Your task to perform on an android device: Go to calendar. Show me events next week Image 0: 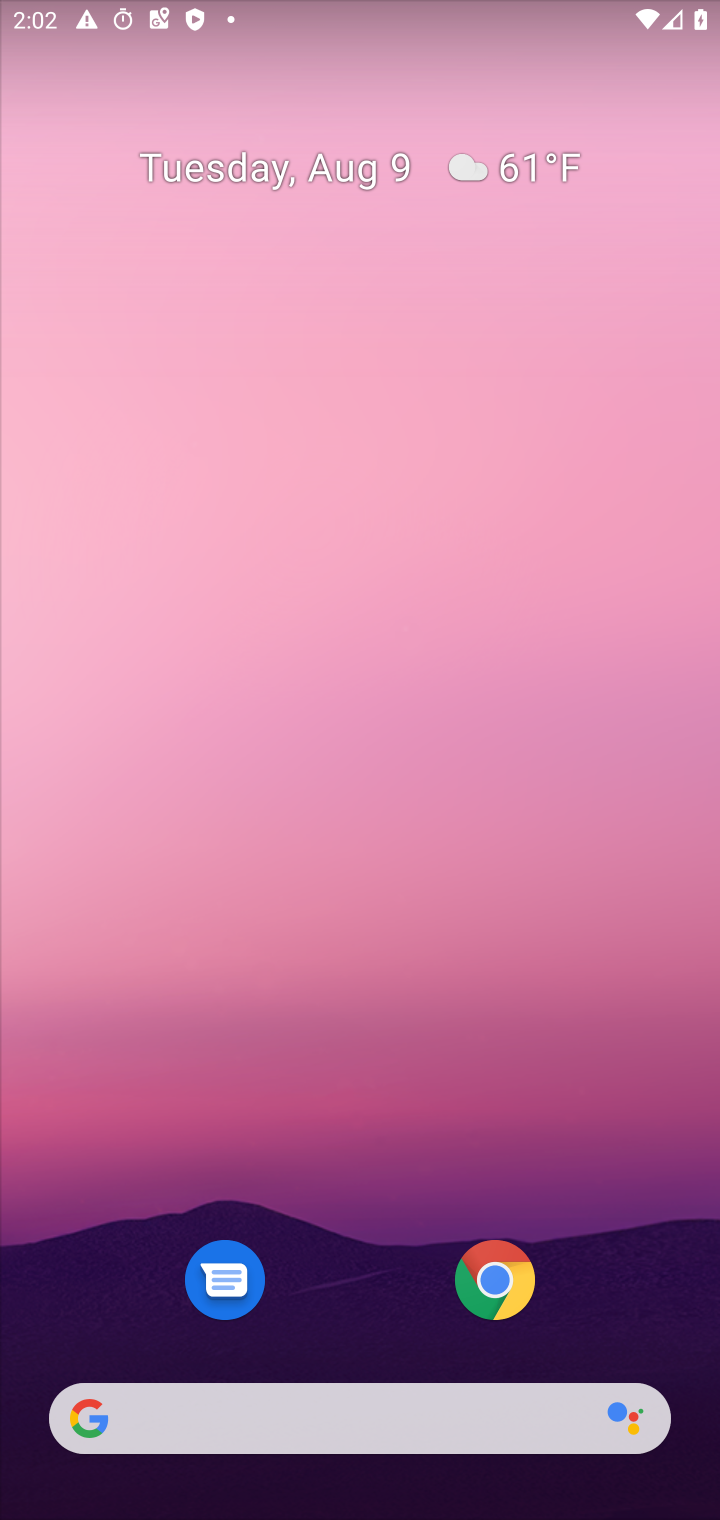
Step 0: drag from (300, 1150) to (508, 111)
Your task to perform on an android device: Go to calendar. Show me events next week Image 1: 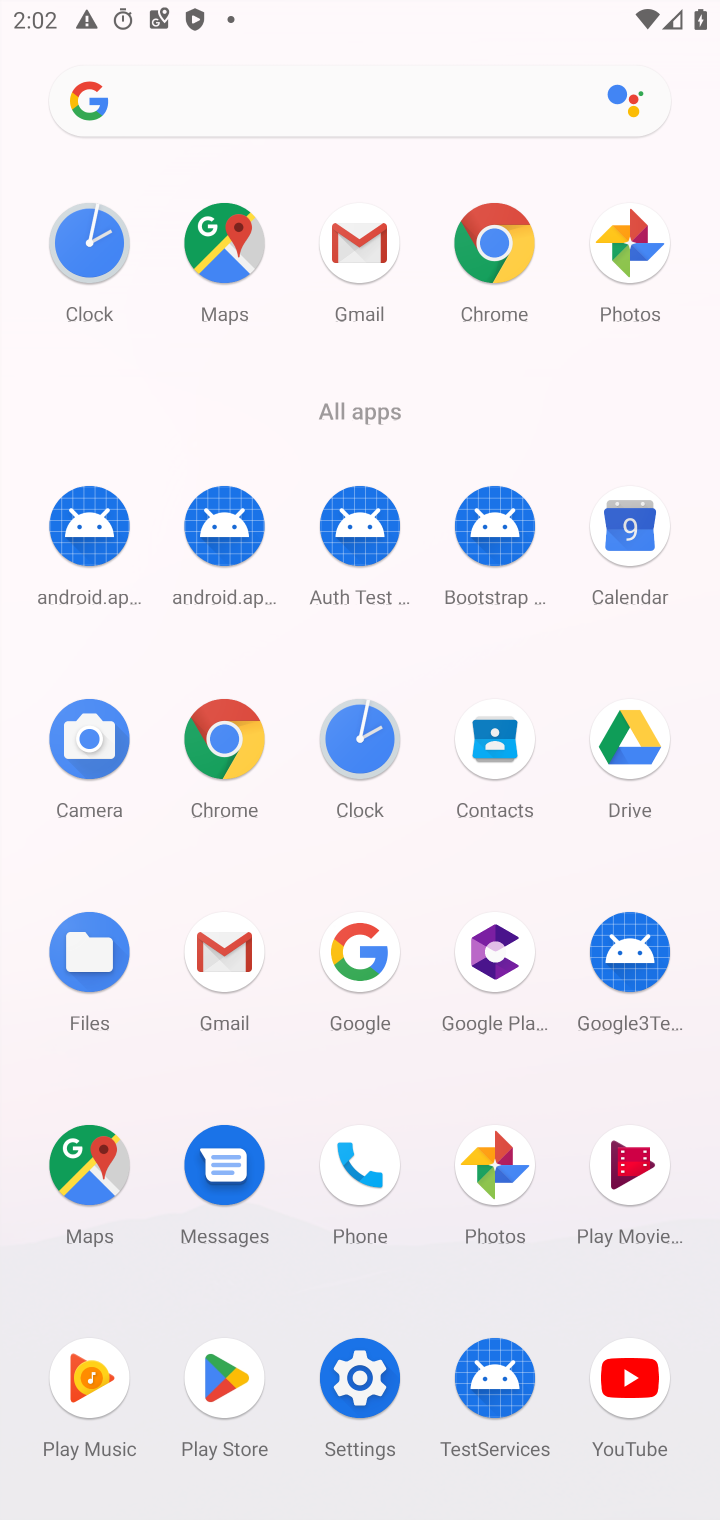
Step 1: click (629, 535)
Your task to perform on an android device: Go to calendar. Show me events next week Image 2: 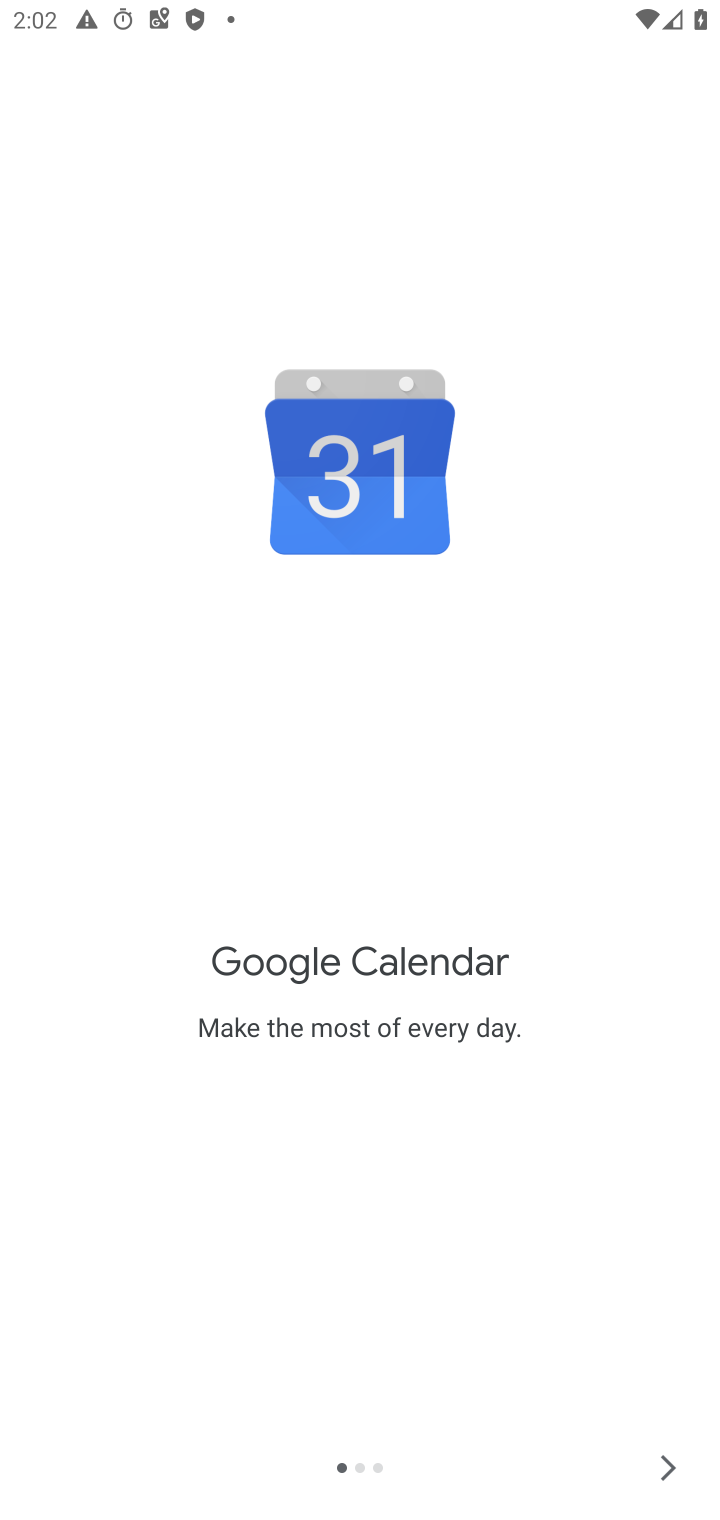
Step 2: click (663, 1473)
Your task to perform on an android device: Go to calendar. Show me events next week Image 3: 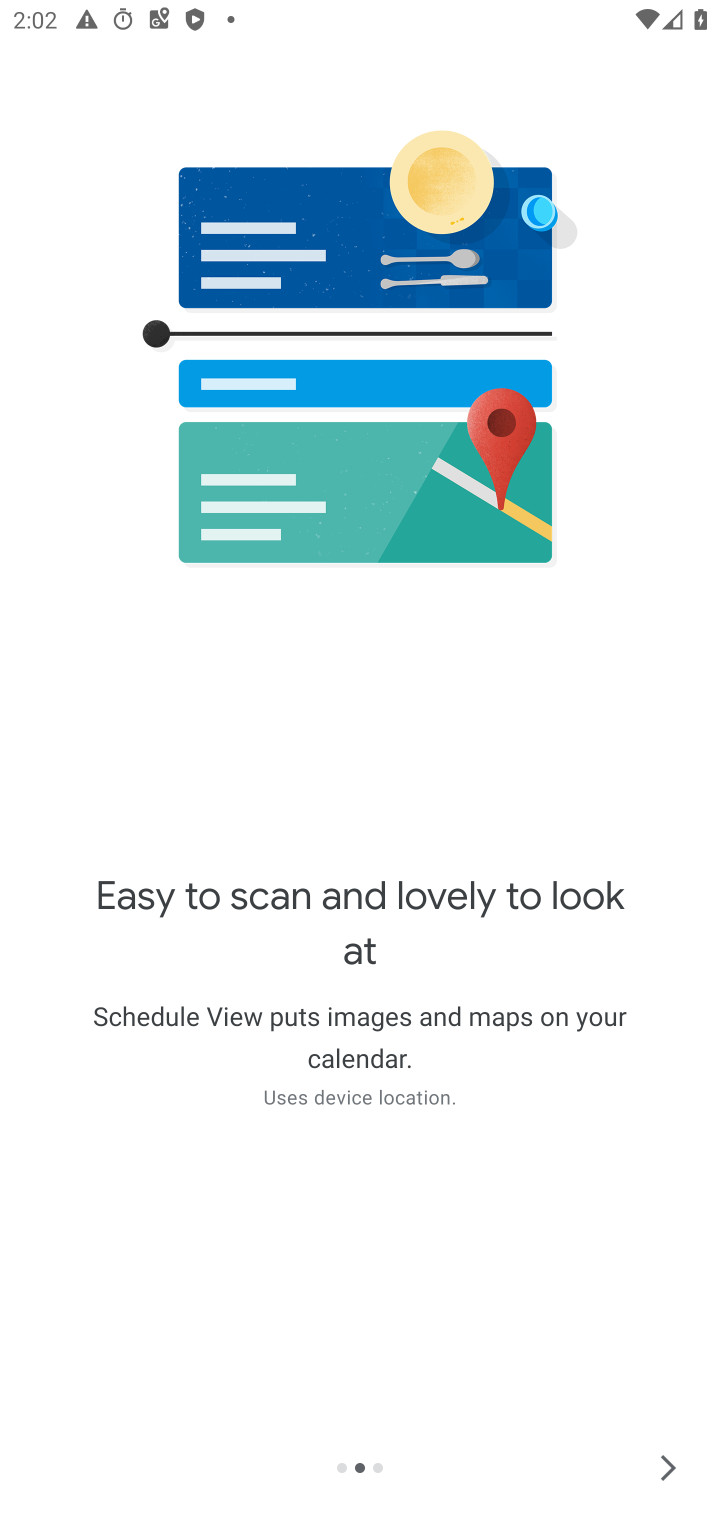
Step 3: click (660, 1464)
Your task to perform on an android device: Go to calendar. Show me events next week Image 4: 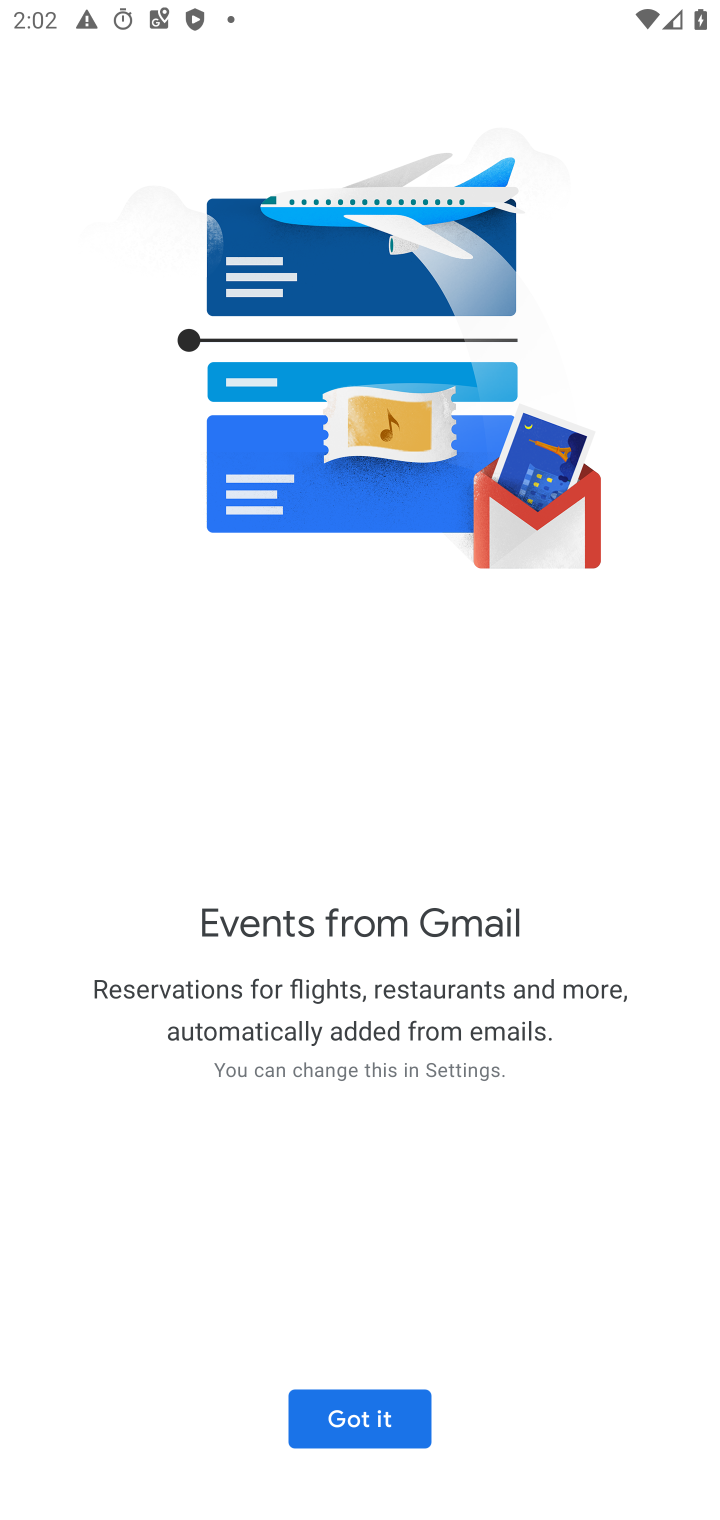
Step 4: click (398, 1423)
Your task to perform on an android device: Go to calendar. Show me events next week Image 5: 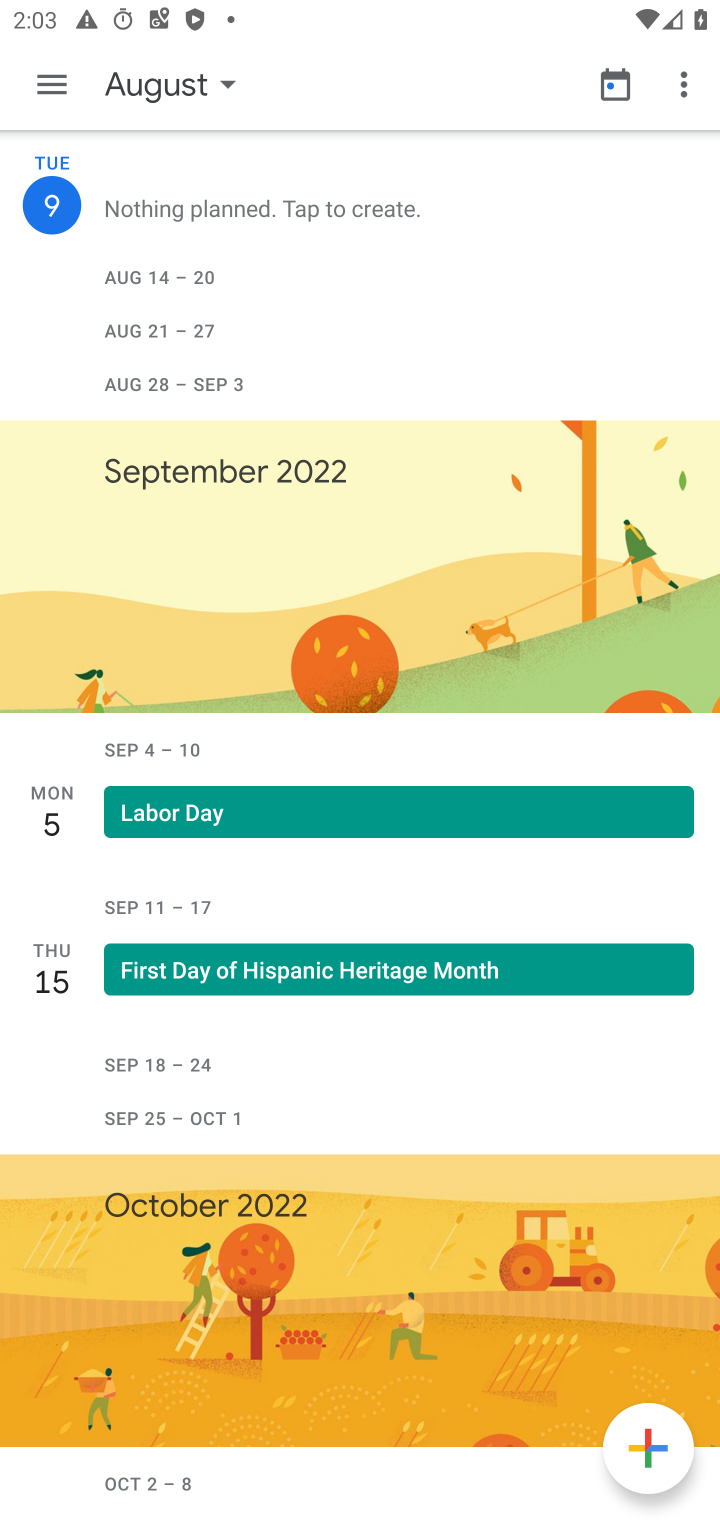
Step 5: click (173, 78)
Your task to perform on an android device: Go to calendar. Show me events next week Image 6: 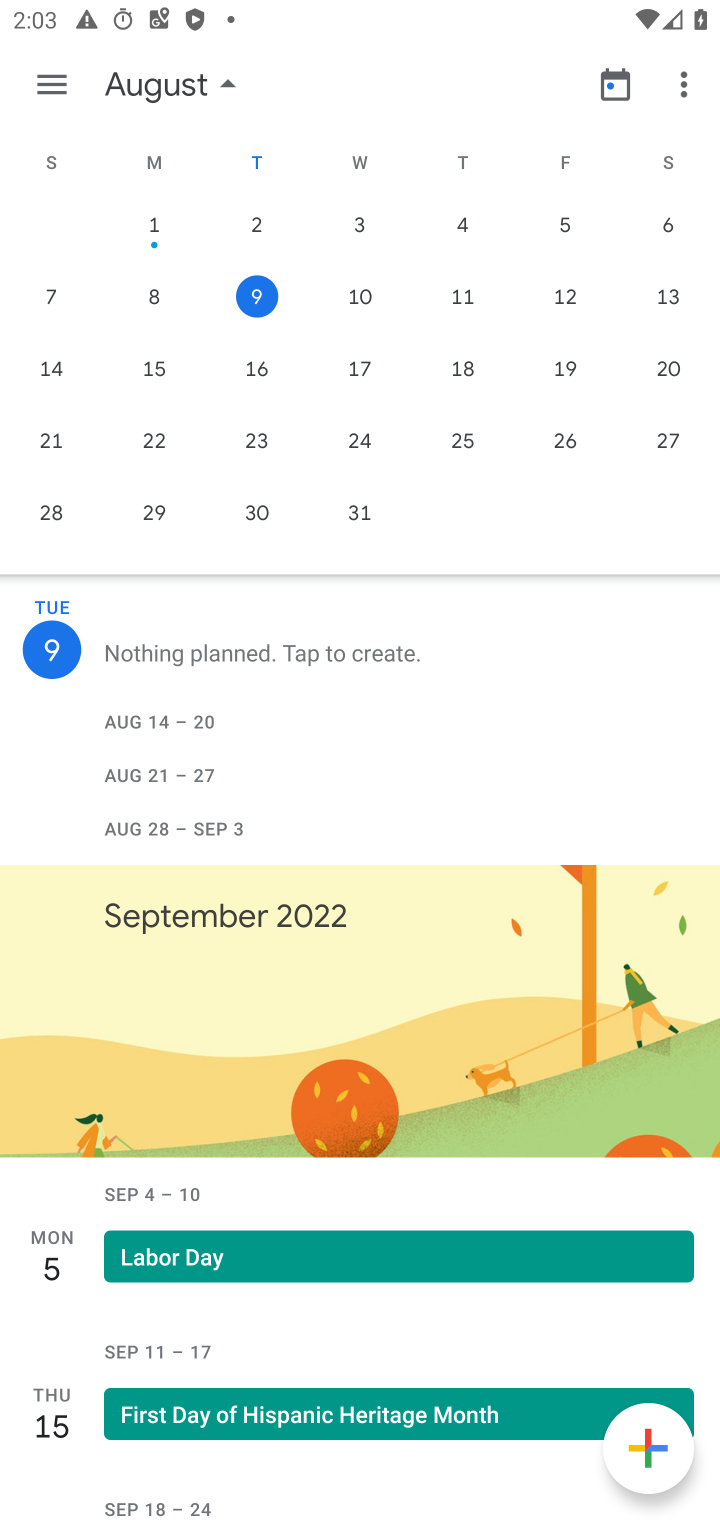
Step 6: click (43, 372)
Your task to perform on an android device: Go to calendar. Show me events next week Image 7: 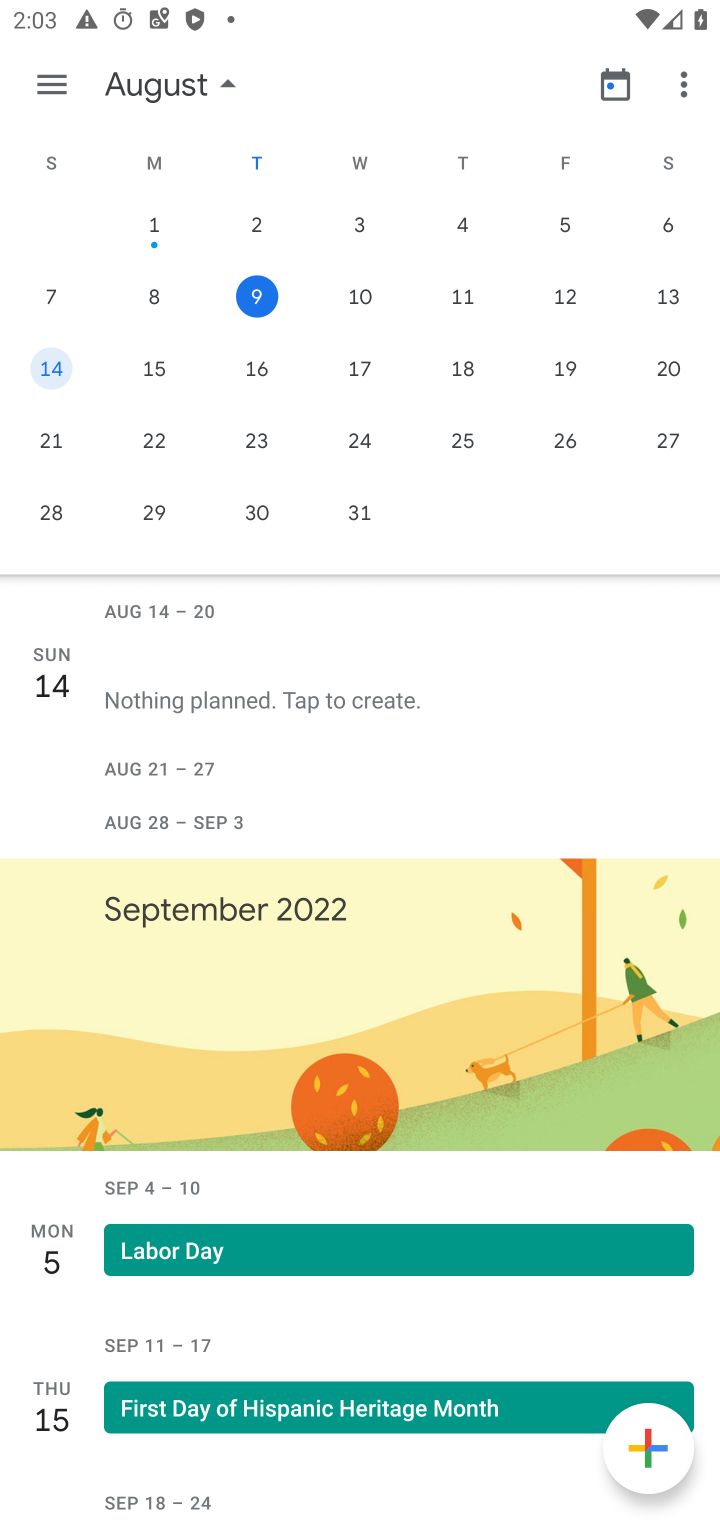
Step 7: click (40, 84)
Your task to perform on an android device: Go to calendar. Show me events next week Image 8: 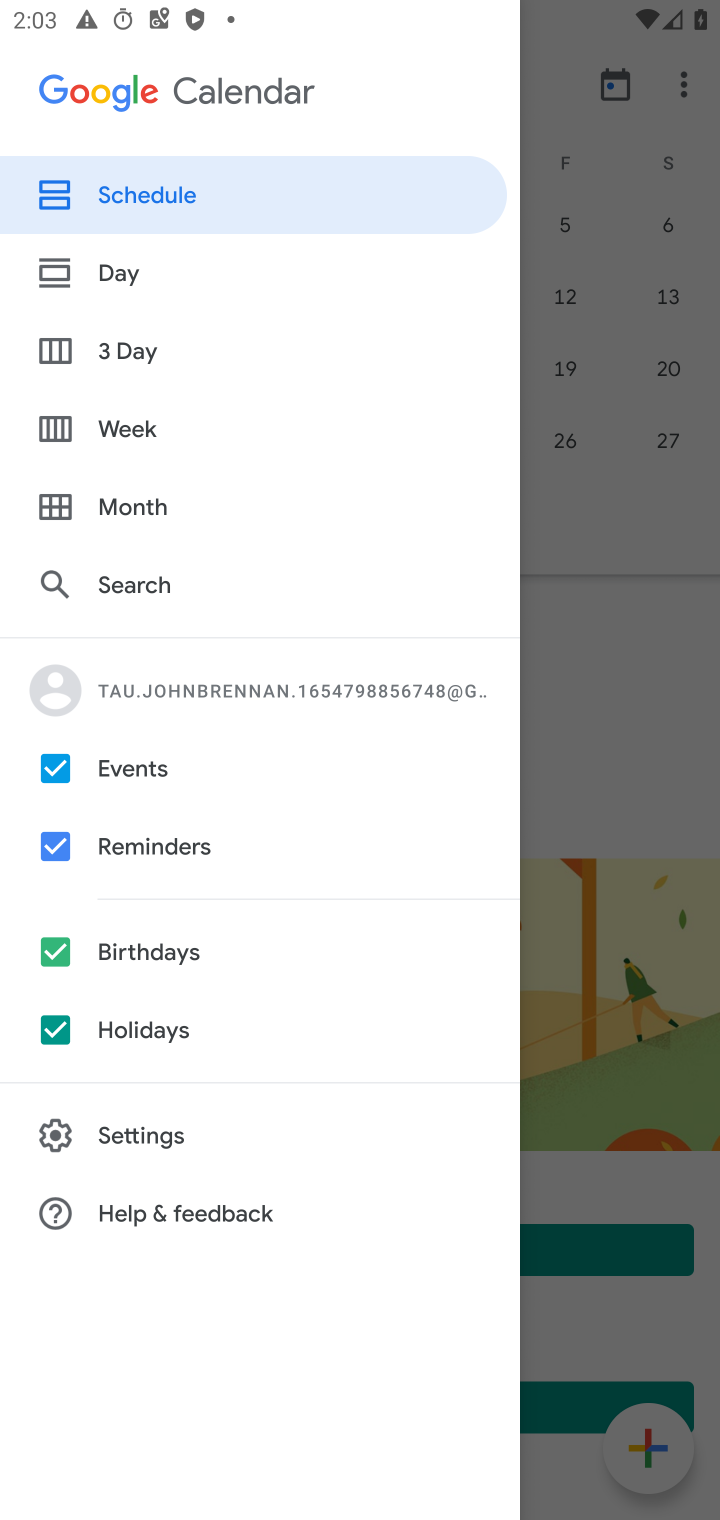
Step 8: click (126, 421)
Your task to perform on an android device: Go to calendar. Show me events next week Image 9: 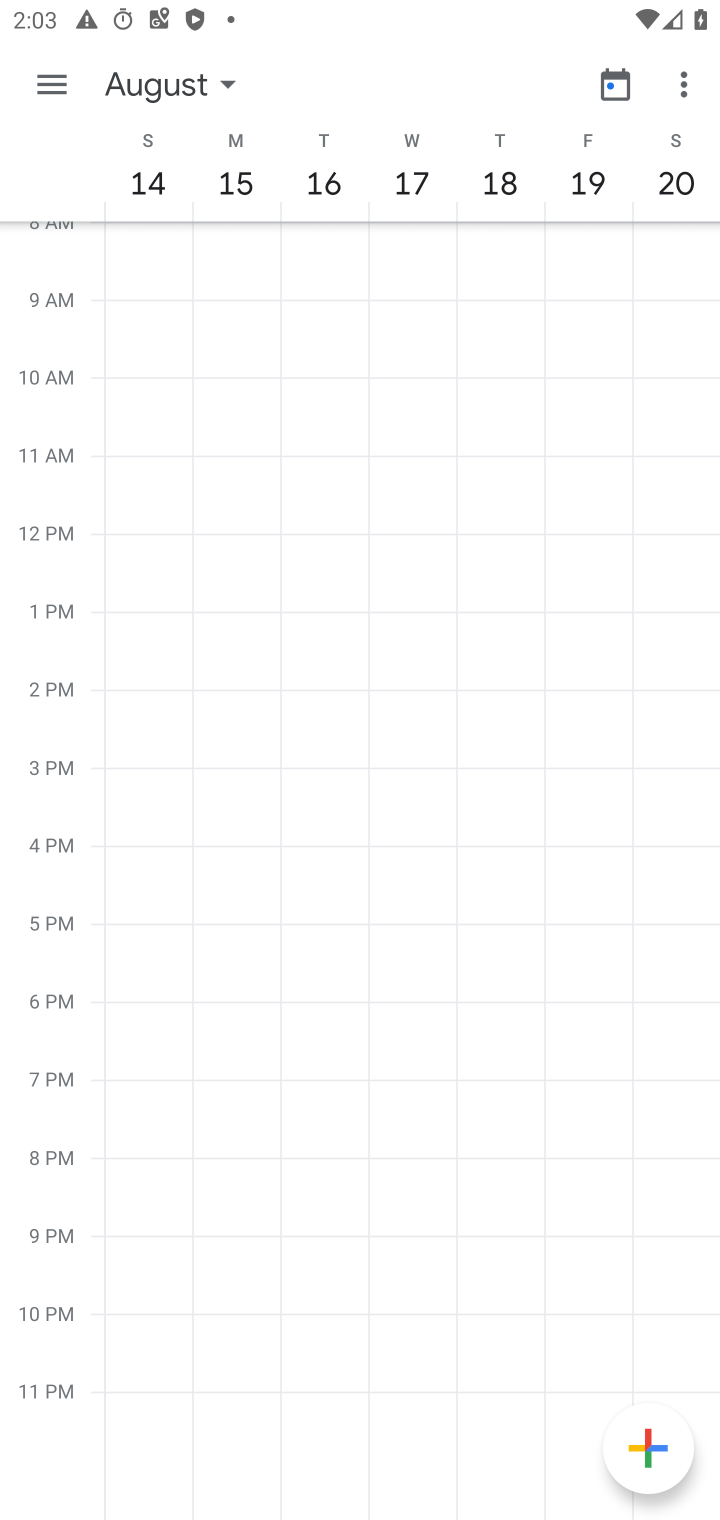
Step 9: task complete